Your task to perform on an android device: show emergency info Image 0: 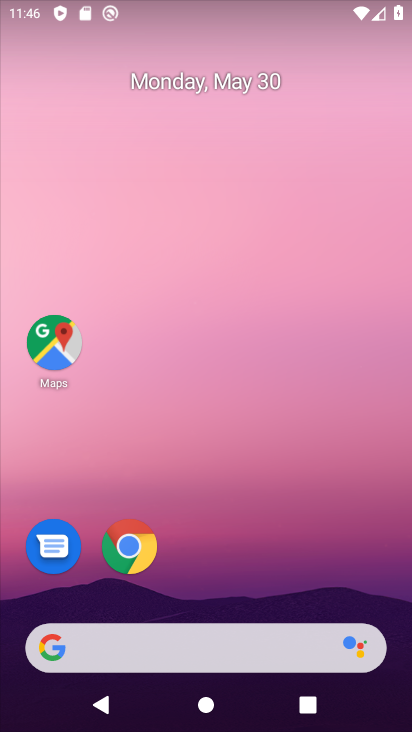
Step 0: click (204, 210)
Your task to perform on an android device: show emergency info Image 1: 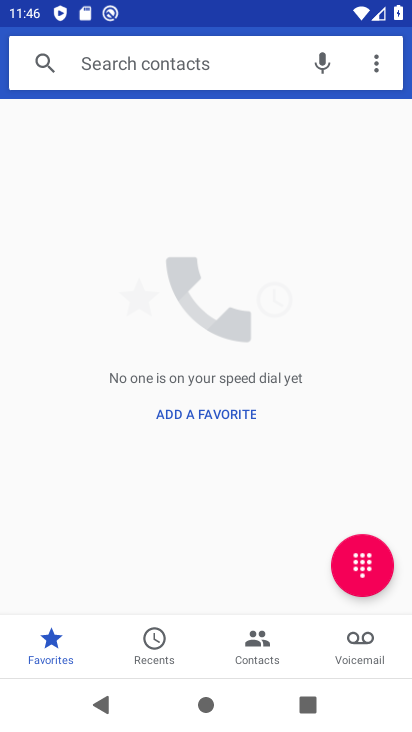
Step 1: press back button
Your task to perform on an android device: show emergency info Image 2: 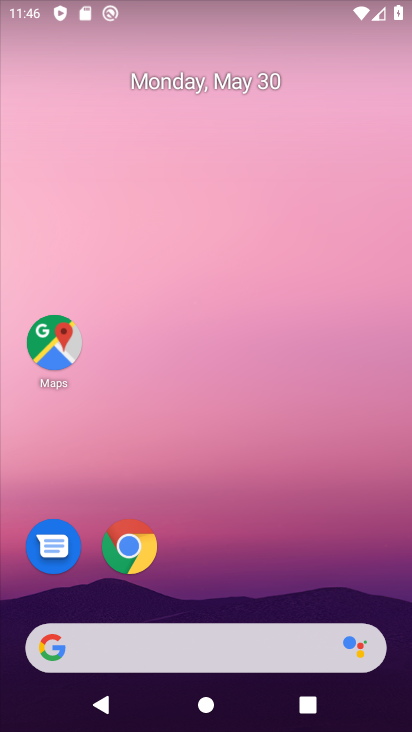
Step 2: drag from (253, 678) to (193, 186)
Your task to perform on an android device: show emergency info Image 3: 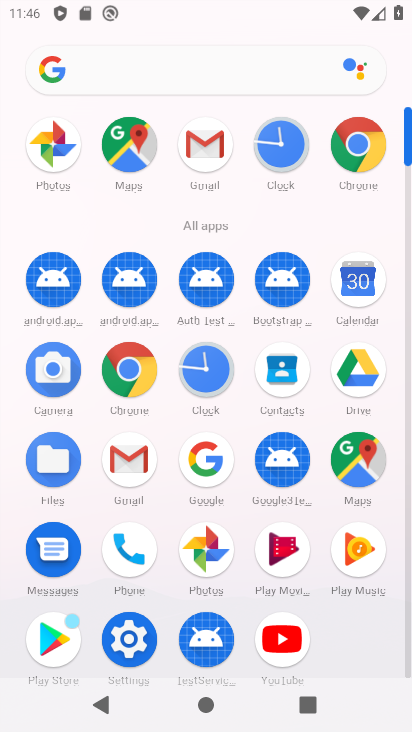
Step 3: click (133, 644)
Your task to perform on an android device: show emergency info Image 4: 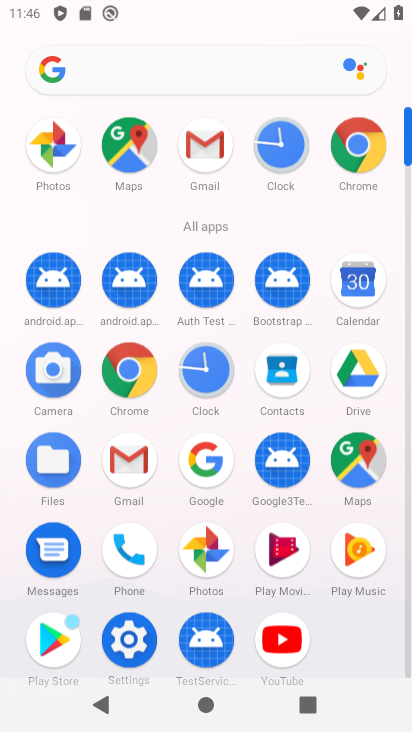
Step 4: click (135, 635)
Your task to perform on an android device: show emergency info Image 5: 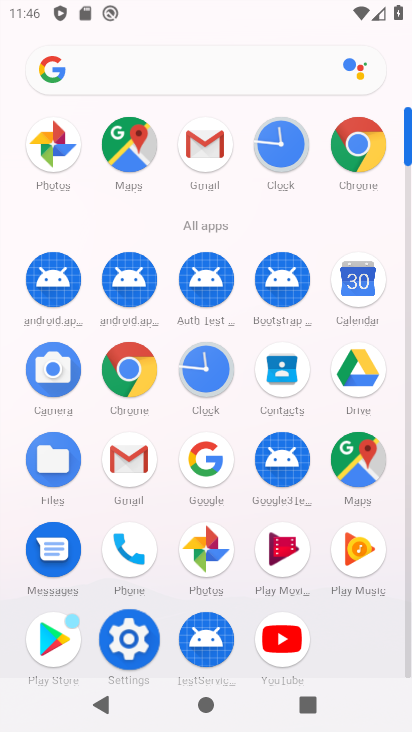
Step 5: click (139, 634)
Your task to perform on an android device: show emergency info Image 6: 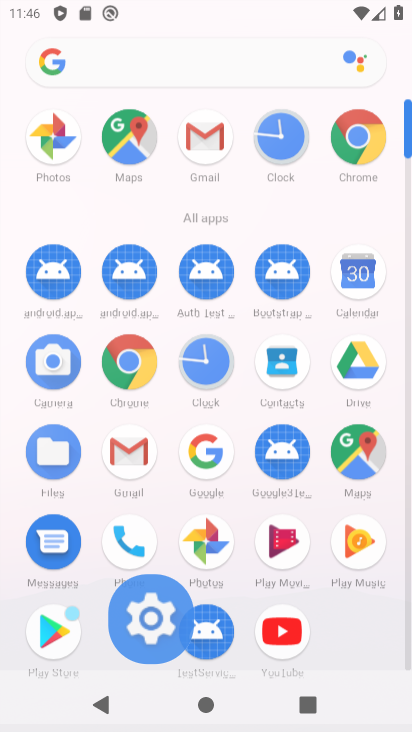
Step 6: click (137, 634)
Your task to perform on an android device: show emergency info Image 7: 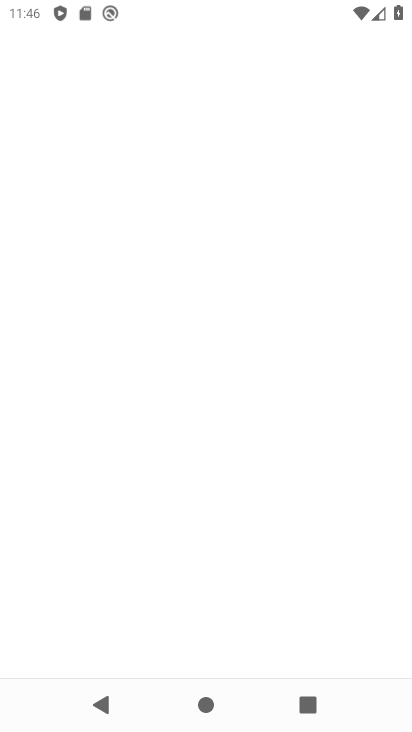
Step 7: click (135, 634)
Your task to perform on an android device: show emergency info Image 8: 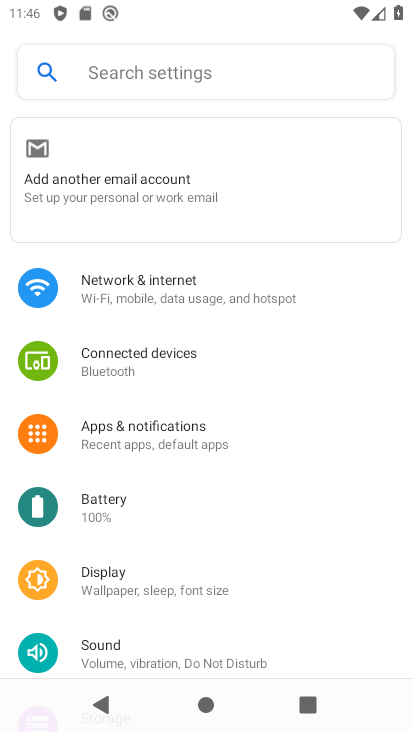
Step 8: drag from (164, 571) to (102, 218)
Your task to perform on an android device: show emergency info Image 9: 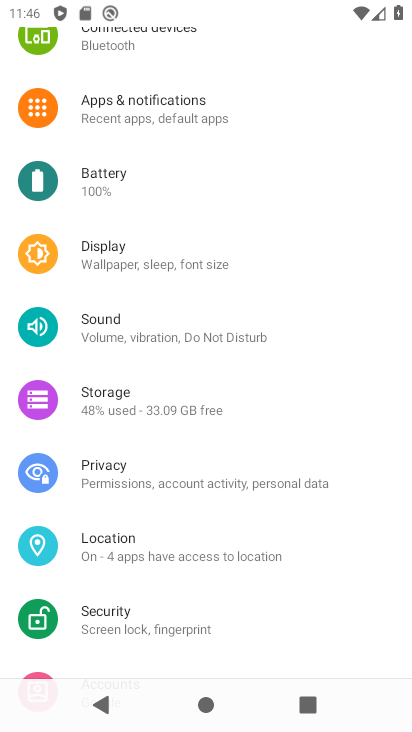
Step 9: drag from (138, 490) to (112, 238)
Your task to perform on an android device: show emergency info Image 10: 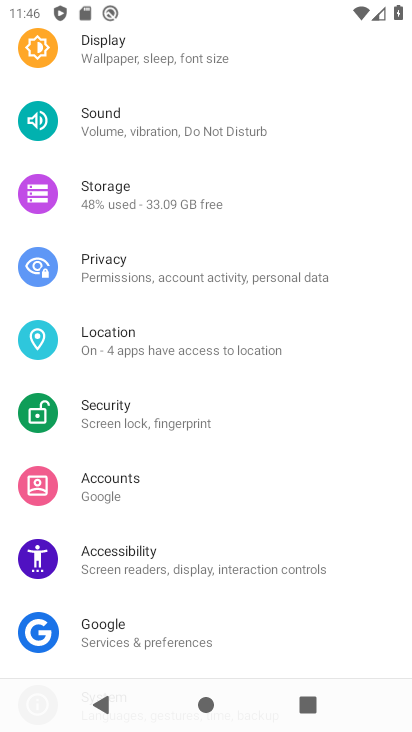
Step 10: drag from (188, 468) to (196, 243)
Your task to perform on an android device: show emergency info Image 11: 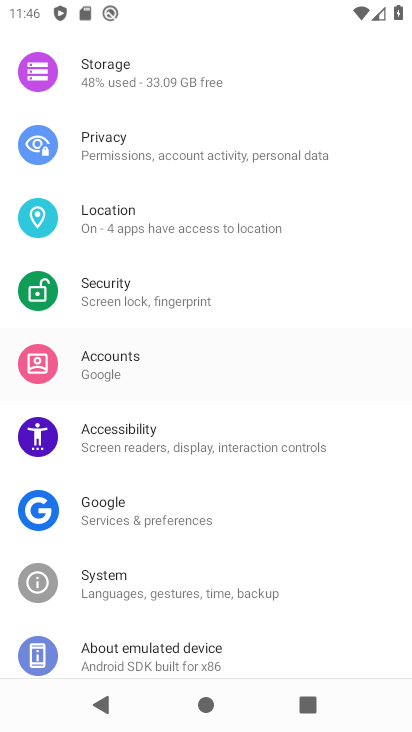
Step 11: drag from (202, 387) to (217, 177)
Your task to perform on an android device: show emergency info Image 12: 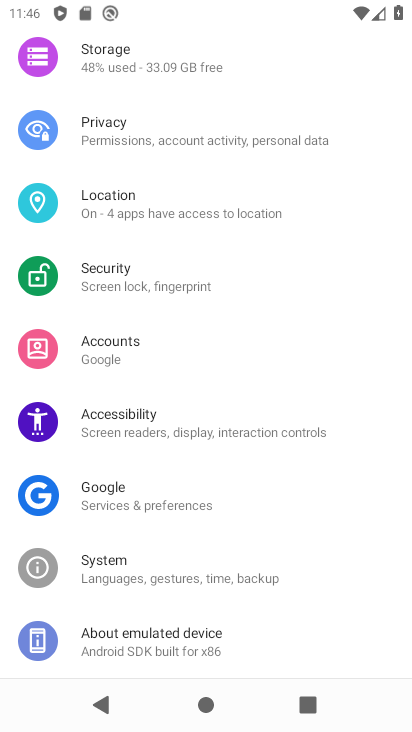
Step 12: drag from (186, 355) to (199, 196)
Your task to perform on an android device: show emergency info Image 13: 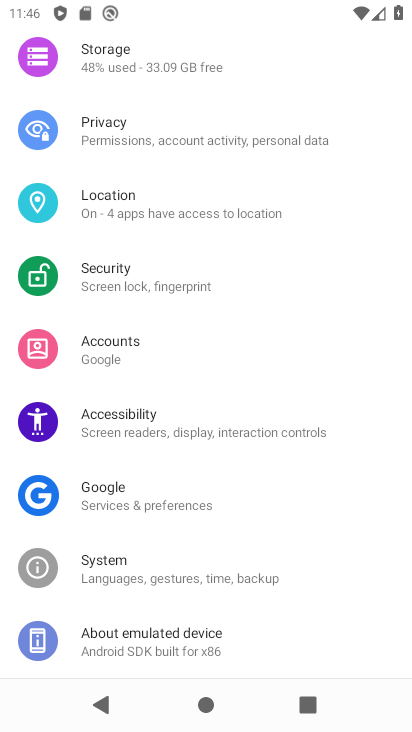
Step 13: click (145, 640)
Your task to perform on an android device: show emergency info Image 14: 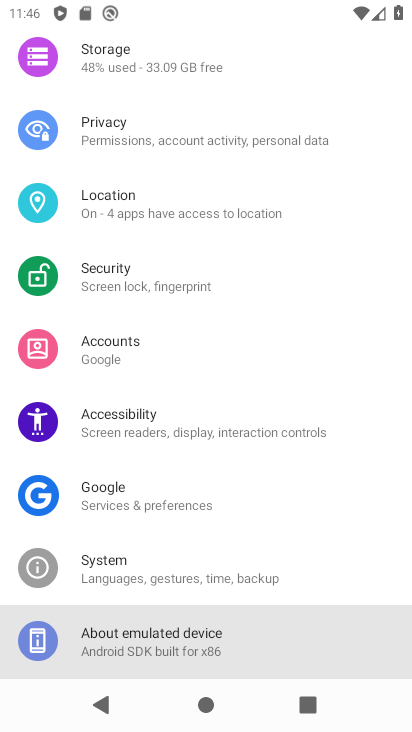
Step 14: click (145, 640)
Your task to perform on an android device: show emergency info Image 15: 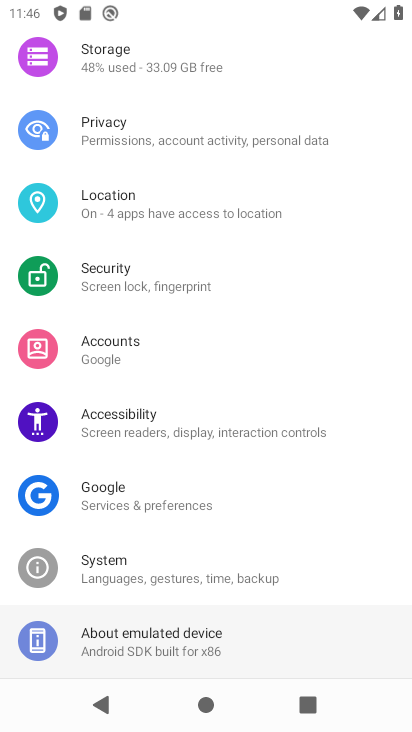
Step 15: click (145, 640)
Your task to perform on an android device: show emergency info Image 16: 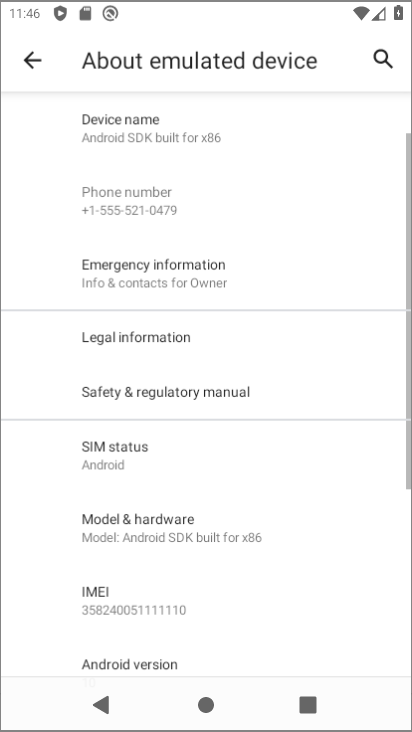
Step 16: click (145, 640)
Your task to perform on an android device: show emergency info Image 17: 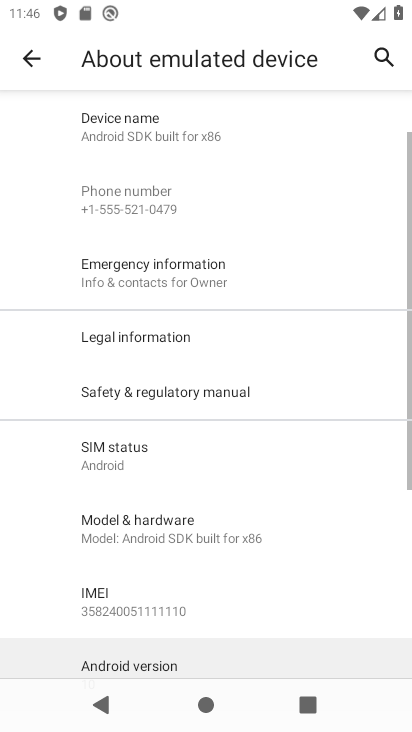
Step 17: click (145, 640)
Your task to perform on an android device: show emergency info Image 18: 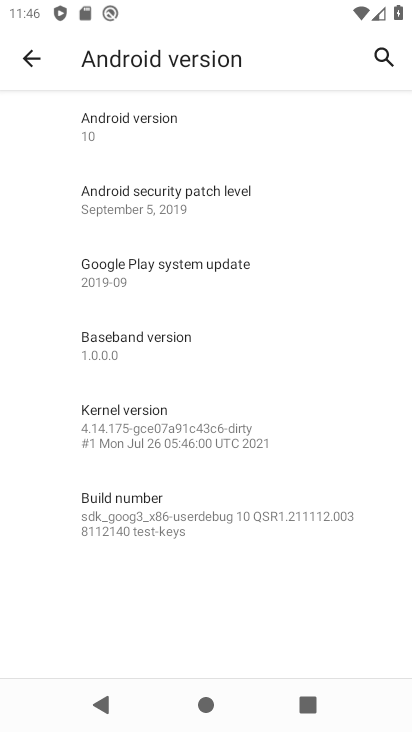
Step 18: click (35, 69)
Your task to perform on an android device: show emergency info Image 19: 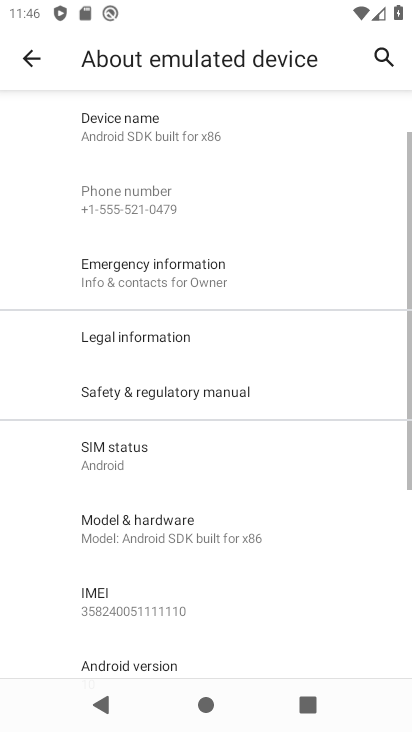
Step 19: task complete